Your task to perform on an android device: find snoozed emails in the gmail app Image 0: 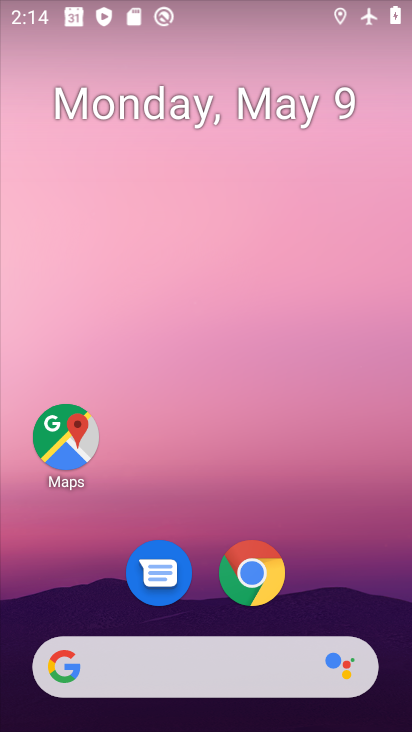
Step 0: drag from (347, 682) to (299, 142)
Your task to perform on an android device: find snoozed emails in the gmail app Image 1: 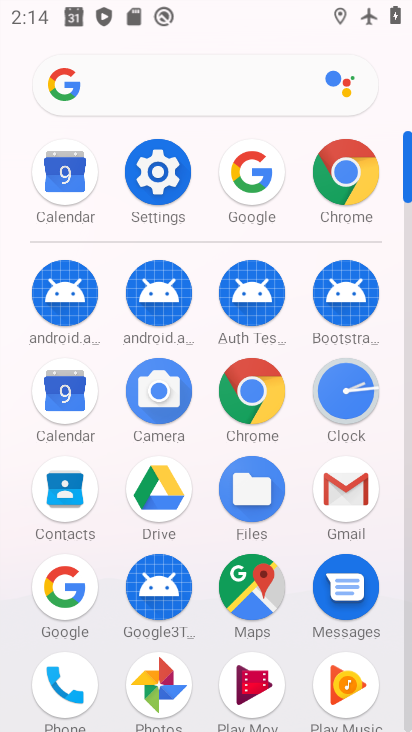
Step 1: click (329, 488)
Your task to perform on an android device: find snoozed emails in the gmail app Image 2: 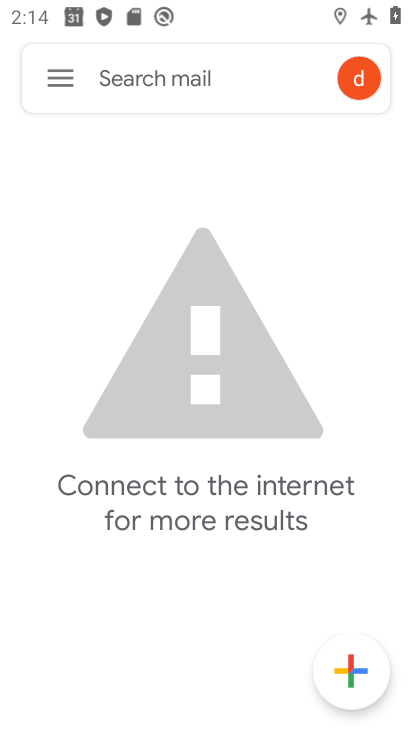
Step 2: click (50, 75)
Your task to perform on an android device: find snoozed emails in the gmail app Image 3: 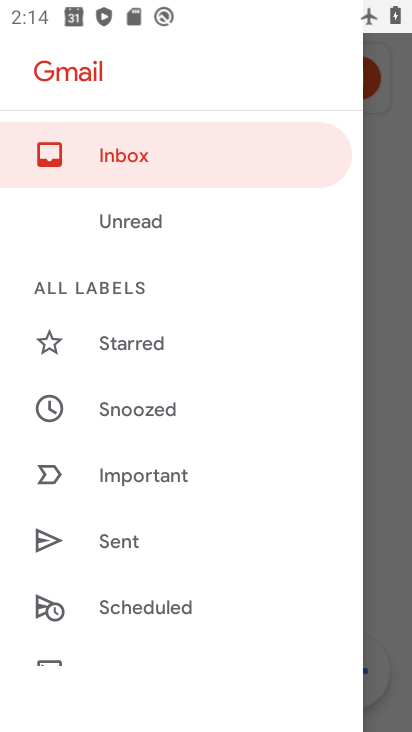
Step 3: drag from (189, 559) to (204, 99)
Your task to perform on an android device: find snoozed emails in the gmail app Image 4: 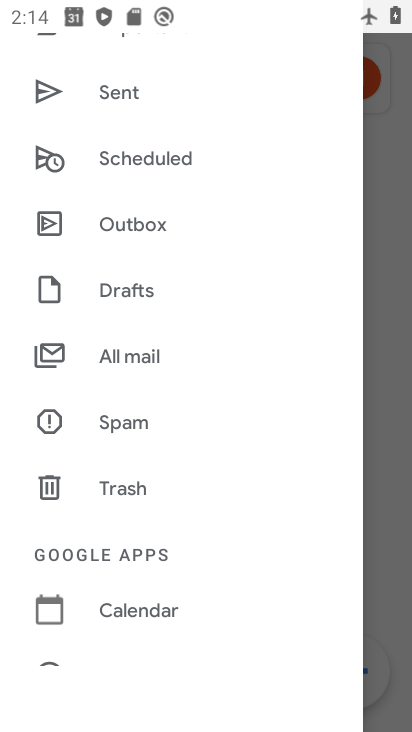
Step 4: click (109, 357)
Your task to perform on an android device: find snoozed emails in the gmail app Image 5: 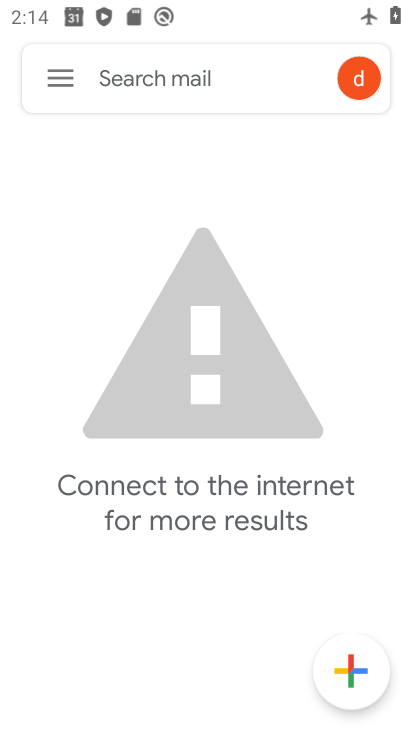
Step 5: click (57, 68)
Your task to perform on an android device: find snoozed emails in the gmail app Image 6: 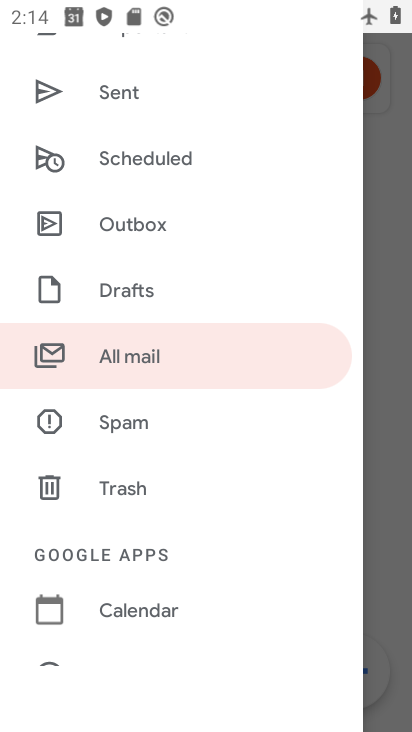
Step 6: drag from (153, 573) to (168, 193)
Your task to perform on an android device: find snoozed emails in the gmail app Image 7: 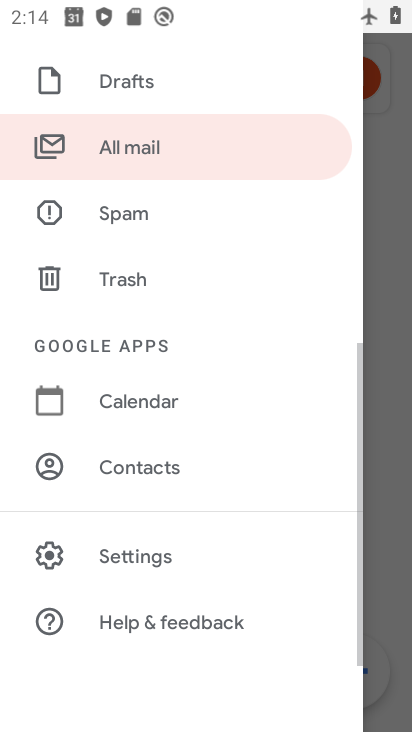
Step 7: click (119, 150)
Your task to perform on an android device: find snoozed emails in the gmail app Image 8: 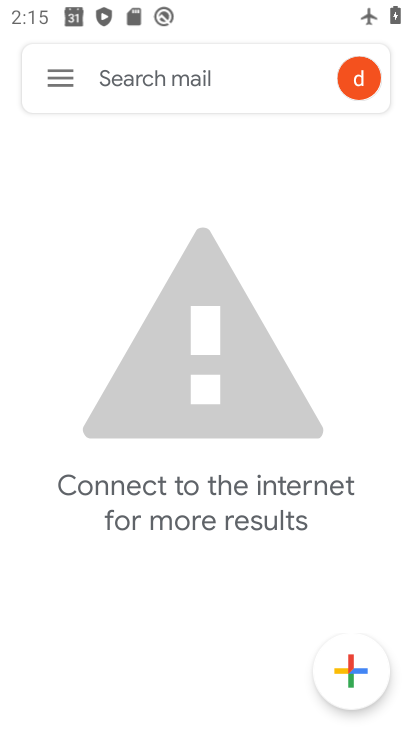
Step 8: task complete